Your task to perform on an android device: Go to Google maps Image 0: 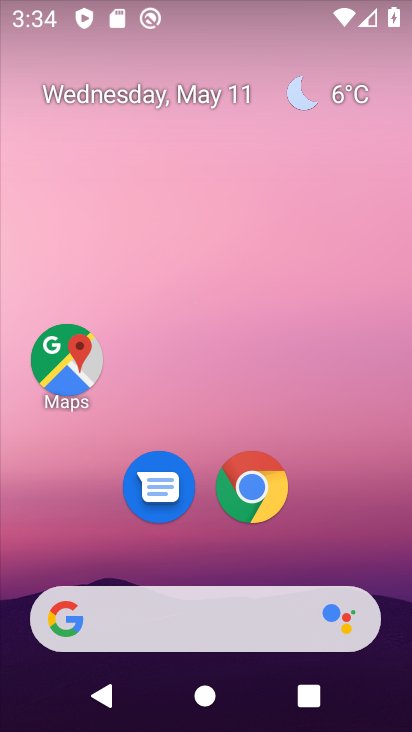
Step 0: drag from (353, 525) to (334, 2)
Your task to perform on an android device: Go to Google maps Image 1: 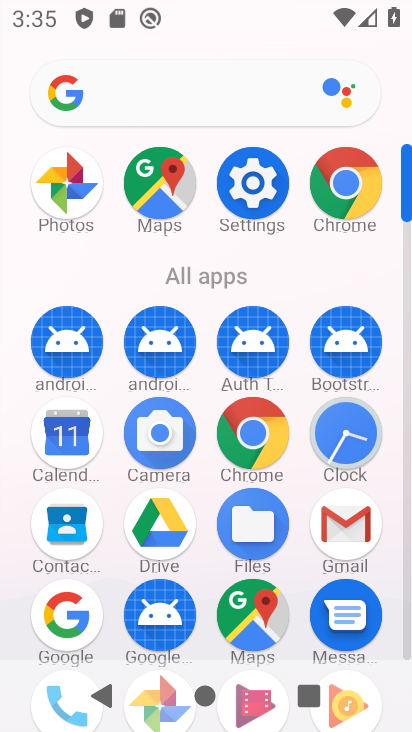
Step 1: click (187, 201)
Your task to perform on an android device: Go to Google maps Image 2: 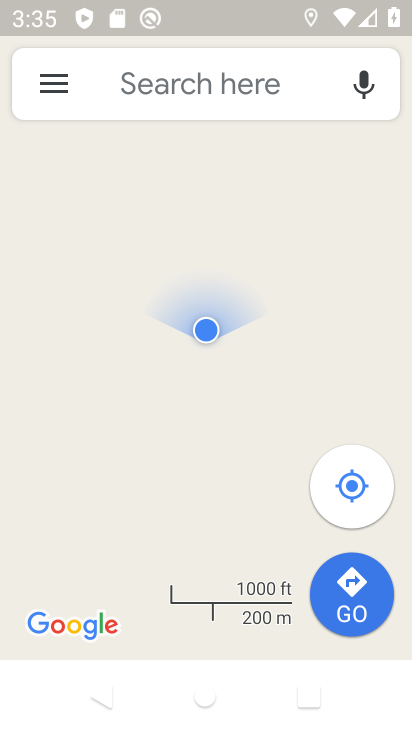
Step 2: task complete